Your task to perform on an android device: Open CNN.com Image 0: 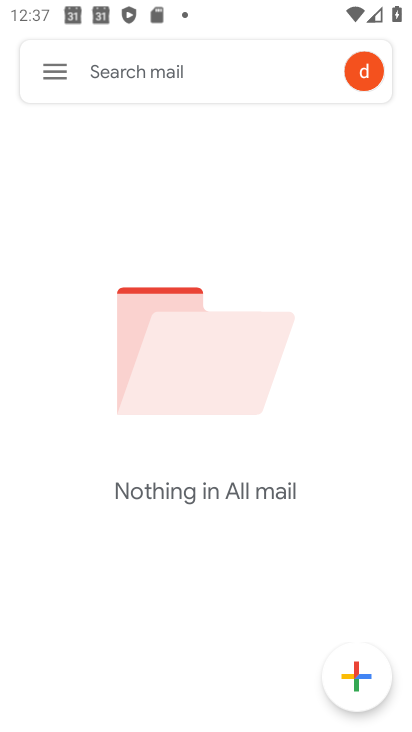
Step 0: press home button
Your task to perform on an android device: Open CNN.com Image 1: 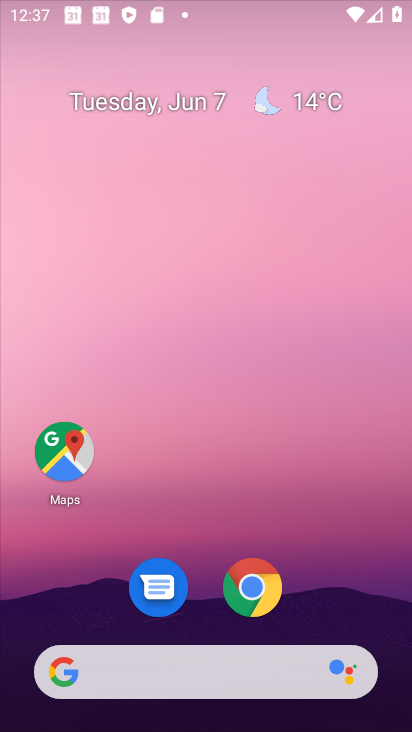
Step 1: drag from (200, 695) to (103, 170)
Your task to perform on an android device: Open CNN.com Image 2: 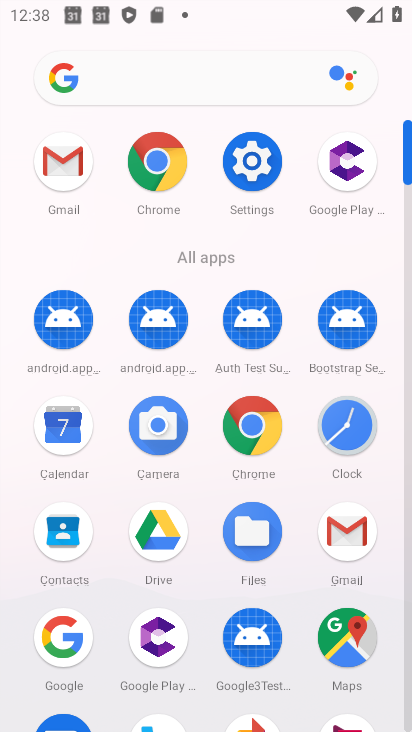
Step 2: click (179, 170)
Your task to perform on an android device: Open CNN.com Image 3: 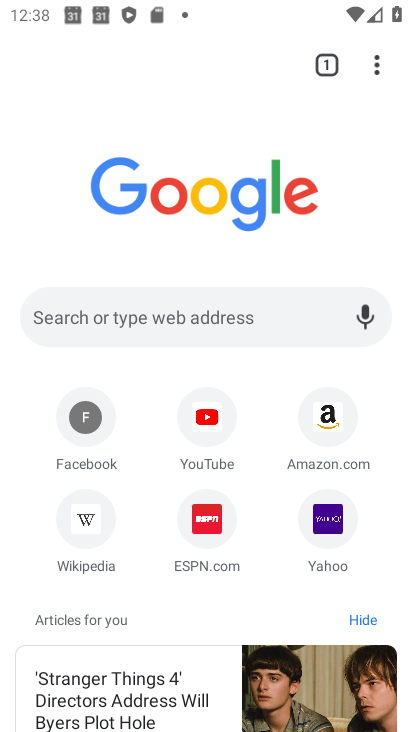
Step 3: click (154, 337)
Your task to perform on an android device: Open CNN.com Image 4: 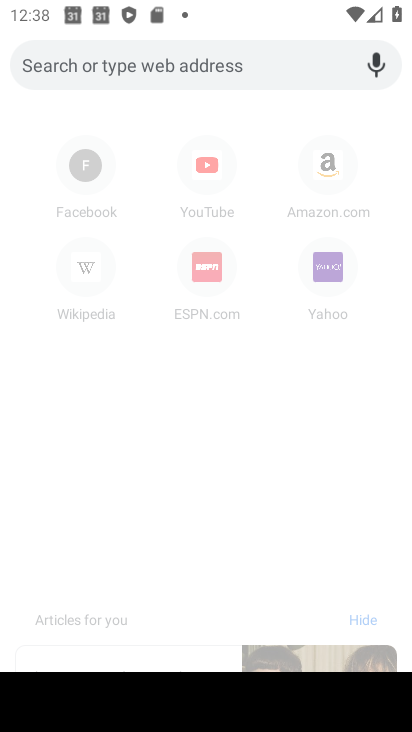
Step 4: type "cnn"
Your task to perform on an android device: Open CNN.com Image 5: 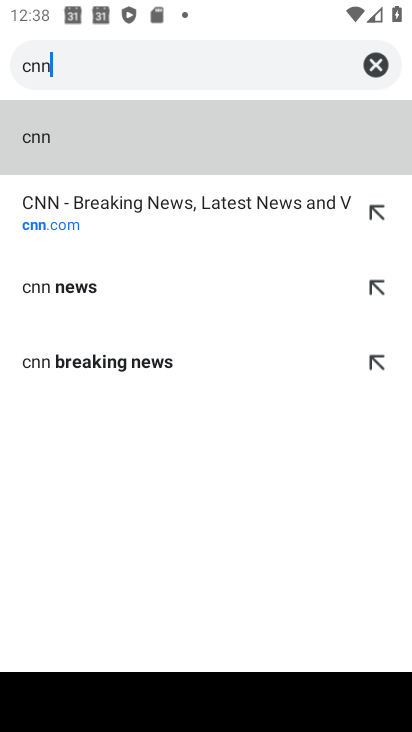
Step 5: click (251, 216)
Your task to perform on an android device: Open CNN.com Image 6: 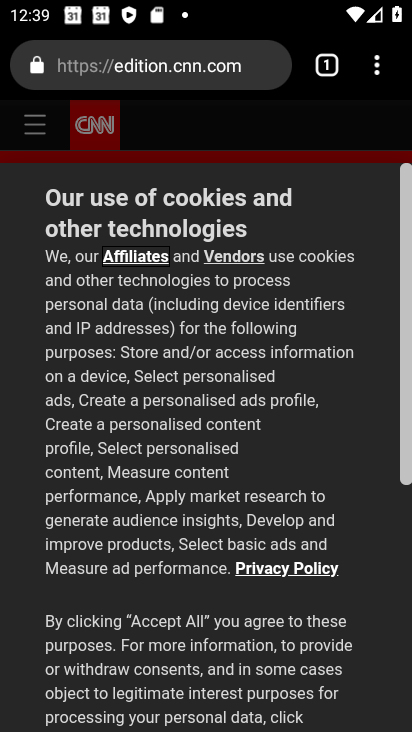
Step 6: task complete